Your task to perform on an android device: toggle wifi Image 0: 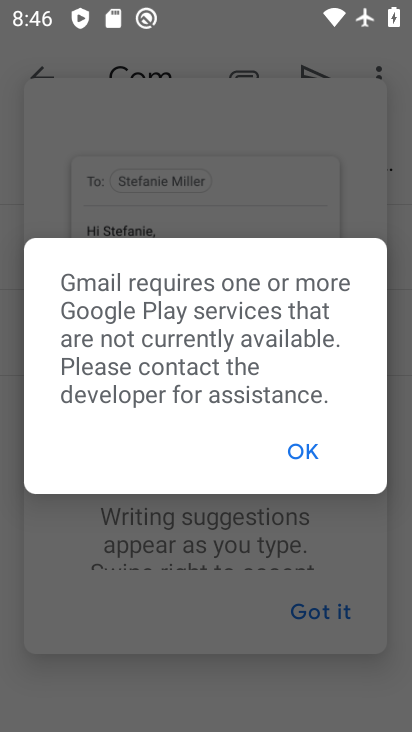
Step 0: press home button
Your task to perform on an android device: toggle wifi Image 1: 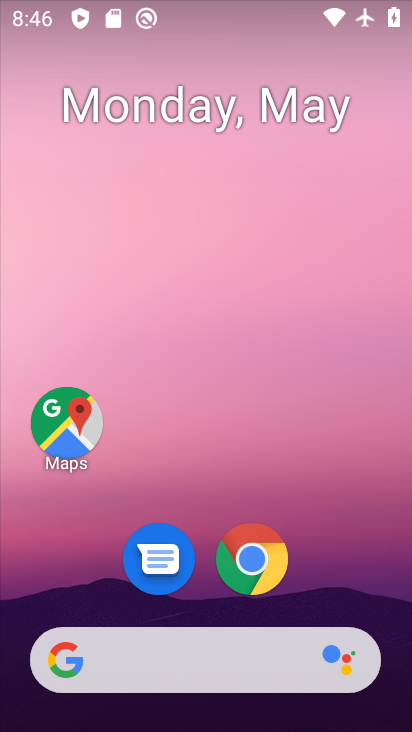
Step 1: drag from (209, 572) to (289, 49)
Your task to perform on an android device: toggle wifi Image 2: 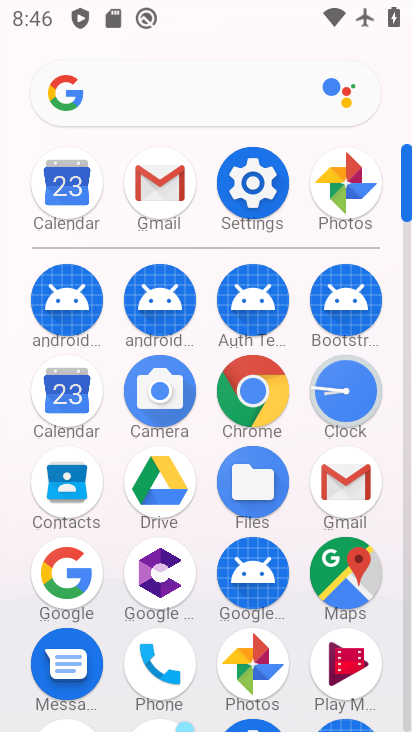
Step 2: click (249, 194)
Your task to perform on an android device: toggle wifi Image 3: 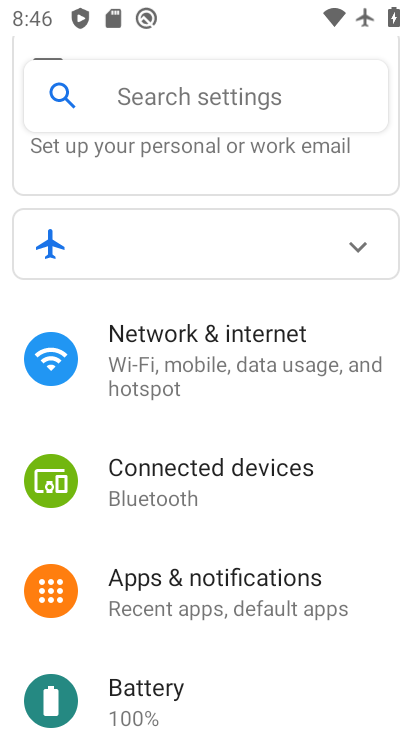
Step 3: click (231, 352)
Your task to perform on an android device: toggle wifi Image 4: 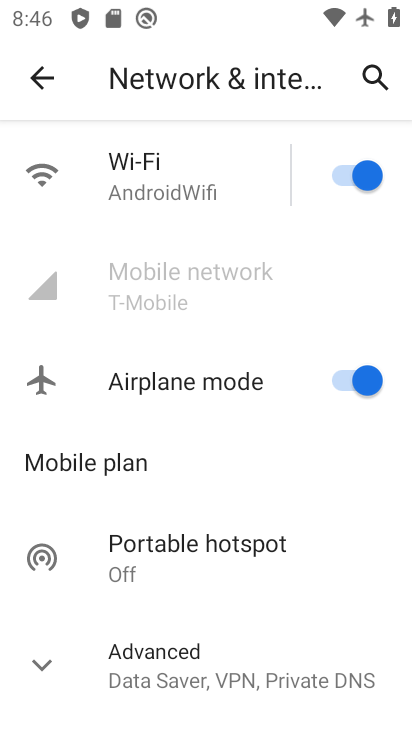
Step 4: click (336, 159)
Your task to perform on an android device: toggle wifi Image 5: 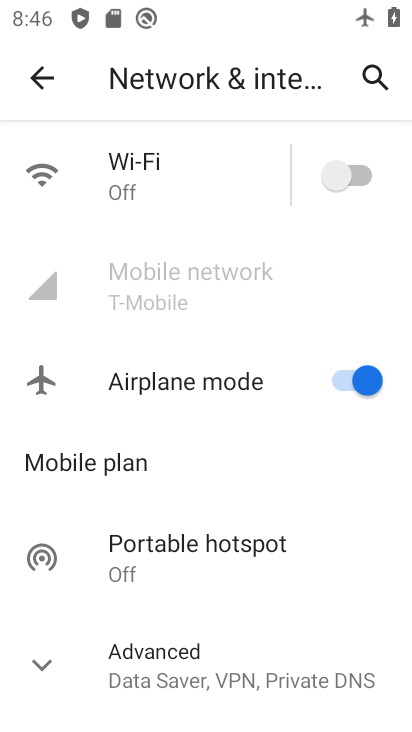
Step 5: task complete